Your task to perform on an android device: Set the phone to "Do not disturb". Image 0: 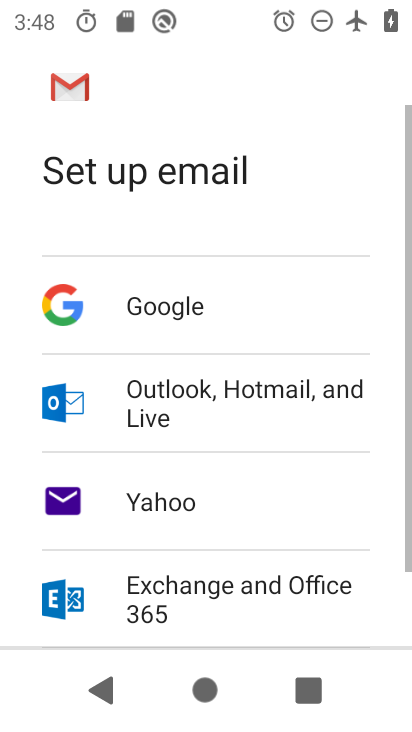
Step 0: press home button
Your task to perform on an android device: Set the phone to "Do not disturb". Image 1: 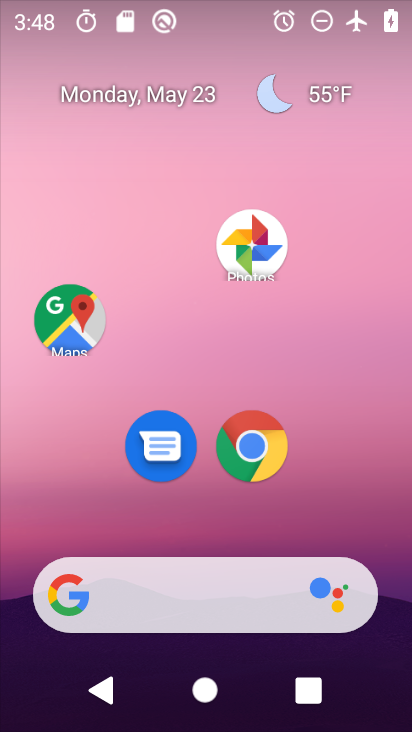
Step 1: drag from (190, 530) to (147, 182)
Your task to perform on an android device: Set the phone to "Do not disturb". Image 2: 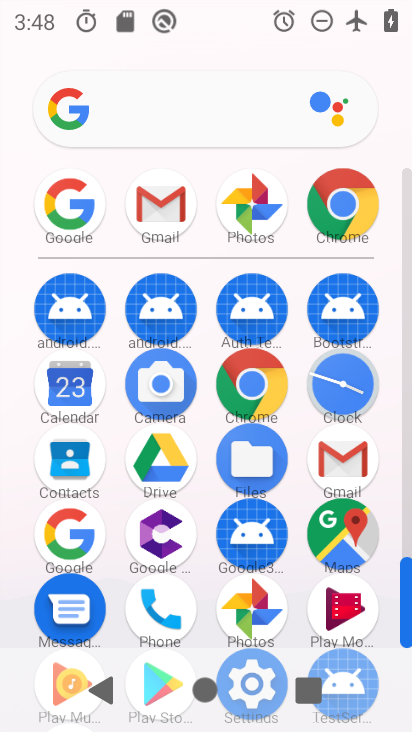
Step 2: drag from (218, 587) to (192, 364)
Your task to perform on an android device: Set the phone to "Do not disturb". Image 3: 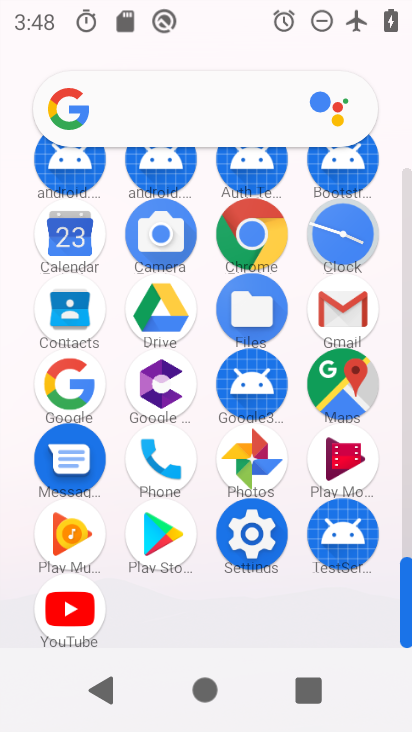
Step 3: click (257, 546)
Your task to perform on an android device: Set the phone to "Do not disturb". Image 4: 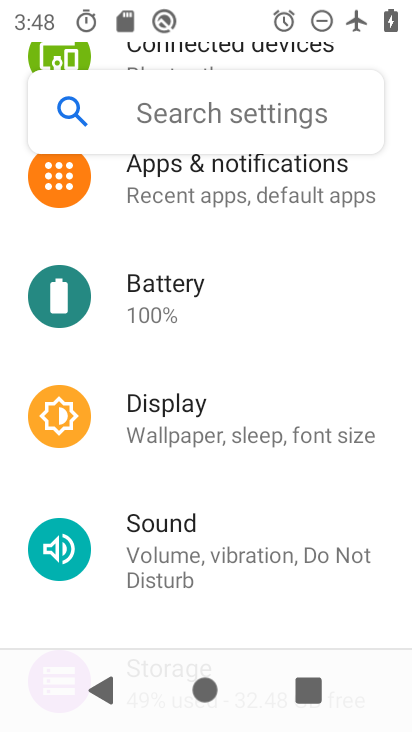
Step 4: click (191, 523)
Your task to perform on an android device: Set the phone to "Do not disturb". Image 5: 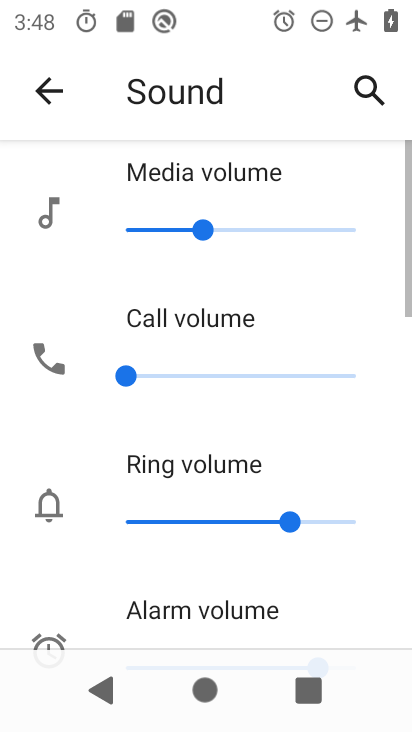
Step 5: drag from (210, 536) to (210, 233)
Your task to perform on an android device: Set the phone to "Do not disturb". Image 6: 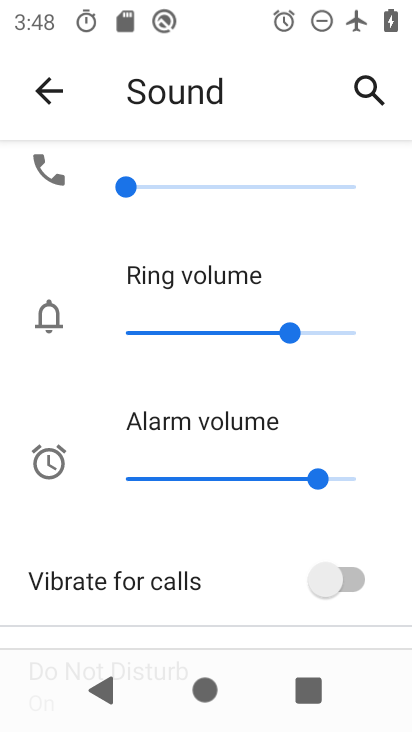
Step 6: drag from (211, 577) to (204, 262)
Your task to perform on an android device: Set the phone to "Do not disturb". Image 7: 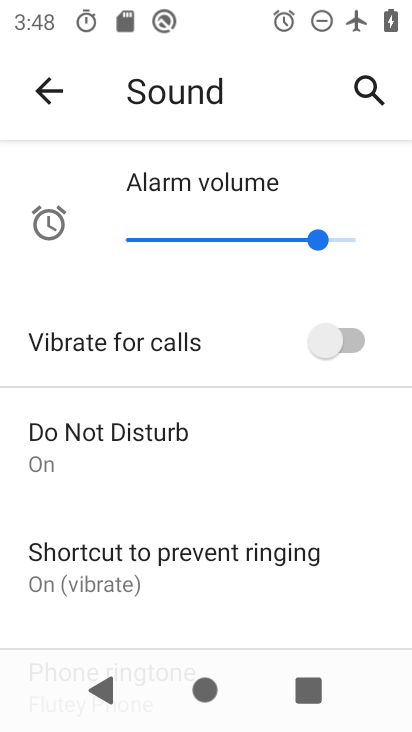
Step 7: click (140, 457)
Your task to perform on an android device: Set the phone to "Do not disturb". Image 8: 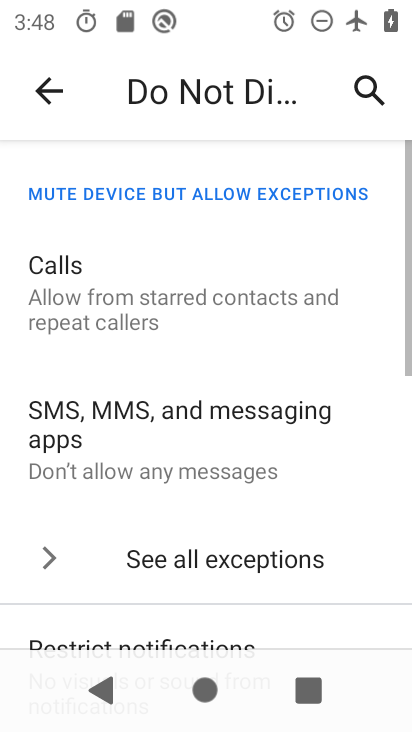
Step 8: task complete